Your task to perform on an android device: turn notification dots on Image 0: 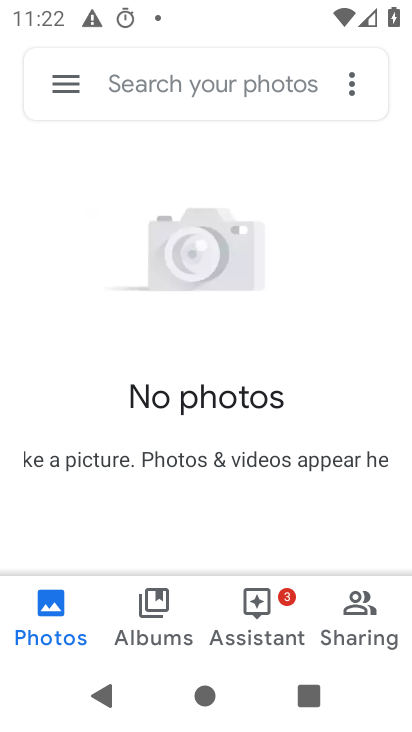
Step 0: press back button
Your task to perform on an android device: turn notification dots on Image 1: 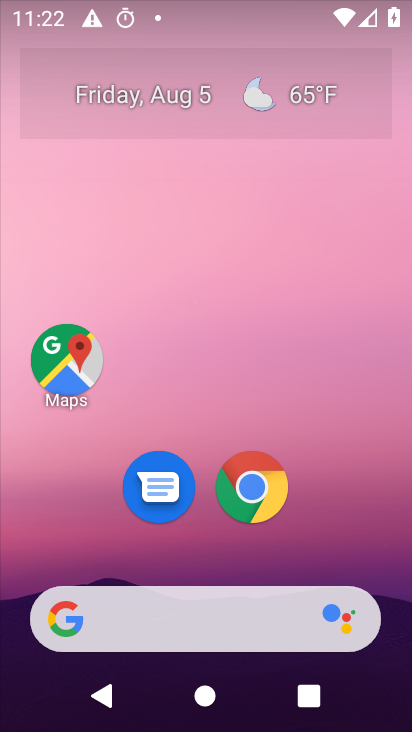
Step 1: drag from (145, 542) to (276, 62)
Your task to perform on an android device: turn notification dots on Image 2: 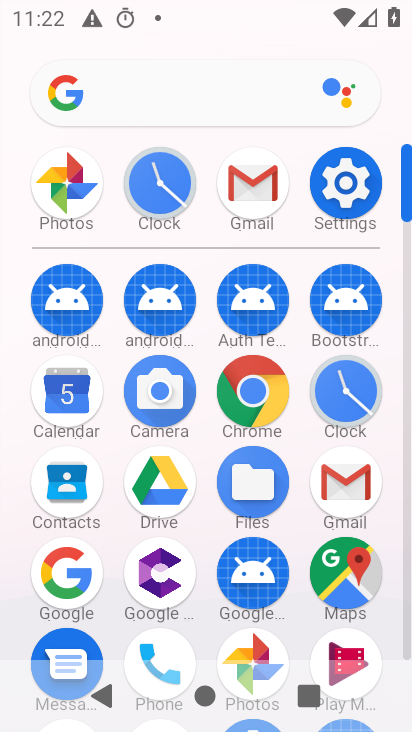
Step 2: click (331, 174)
Your task to perform on an android device: turn notification dots on Image 3: 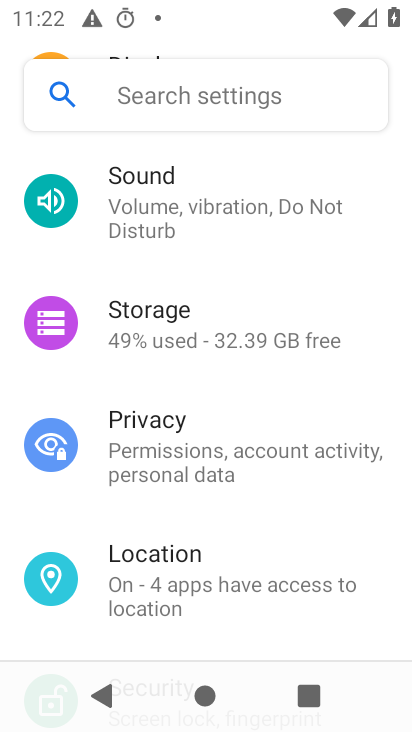
Step 3: drag from (311, 211) to (231, 680)
Your task to perform on an android device: turn notification dots on Image 4: 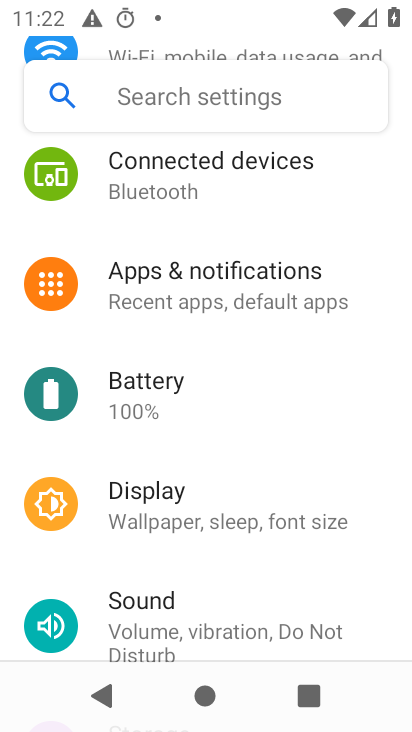
Step 4: click (232, 282)
Your task to perform on an android device: turn notification dots on Image 5: 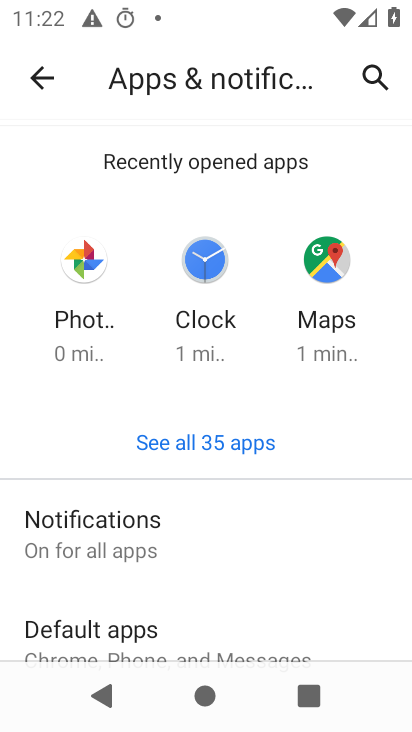
Step 5: click (112, 515)
Your task to perform on an android device: turn notification dots on Image 6: 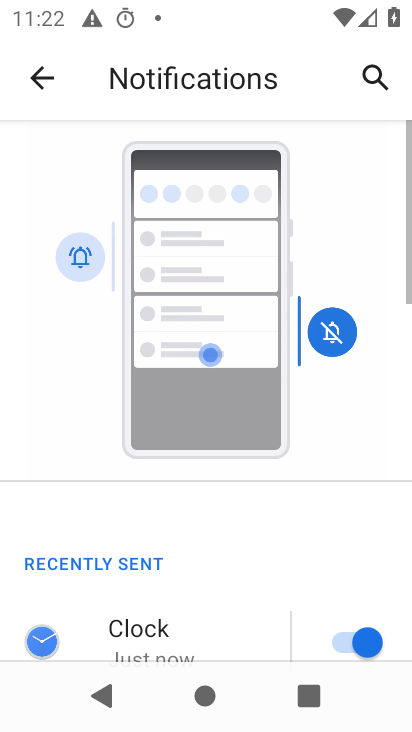
Step 6: drag from (141, 605) to (302, 0)
Your task to perform on an android device: turn notification dots on Image 7: 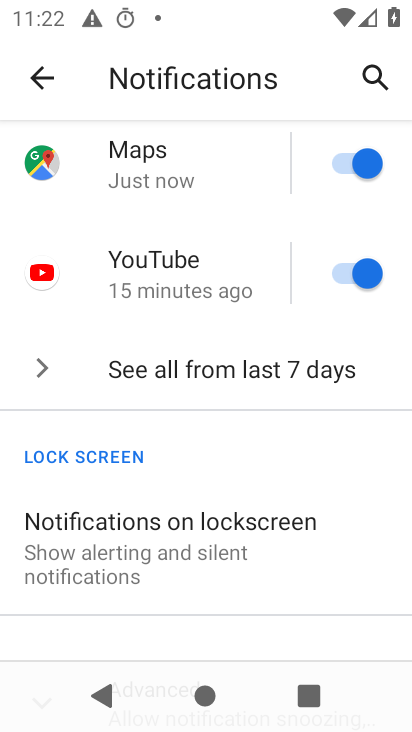
Step 7: drag from (129, 561) to (267, 93)
Your task to perform on an android device: turn notification dots on Image 8: 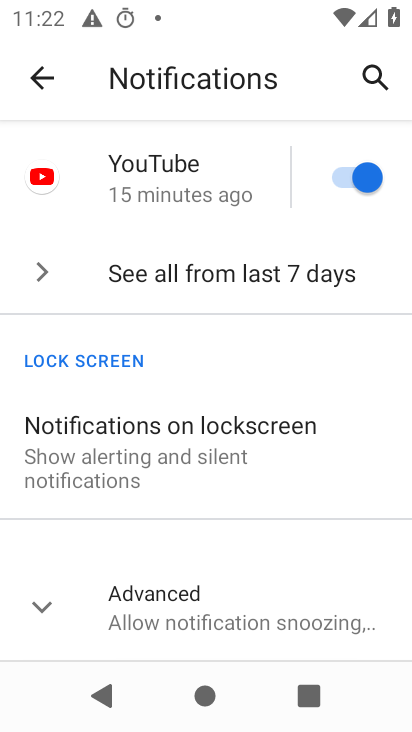
Step 8: click (171, 611)
Your task to perform on an android device: turn notification dots on Image 9: 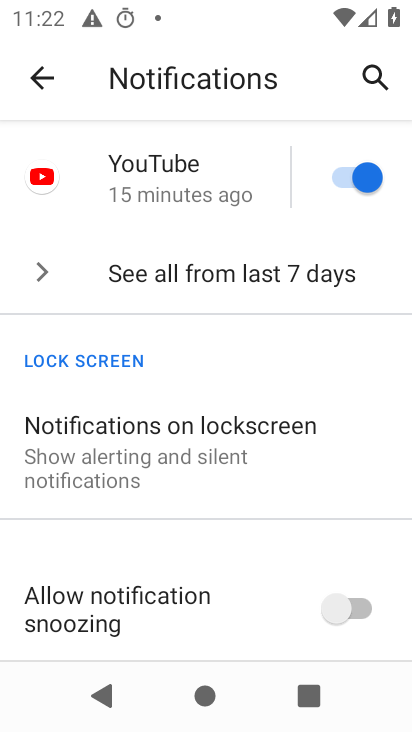
Step 9: drag from (189, 608) to (310, 118)
Your task to perform on an android device: turn notification dots on Image 10: 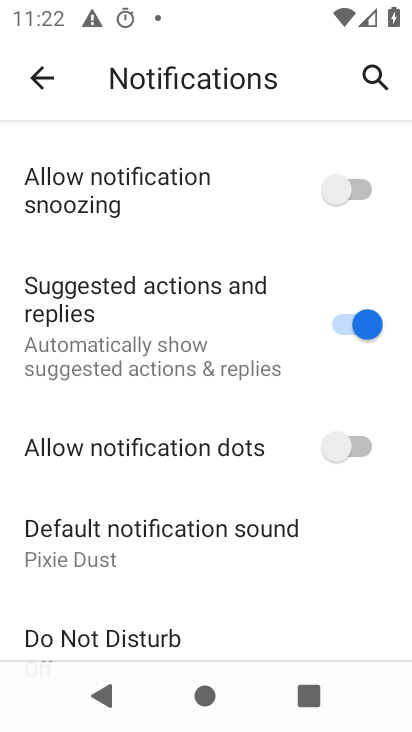
Step 10: click (354, 445)
Your task to perform on an android device: turn notification dots on Image 11: 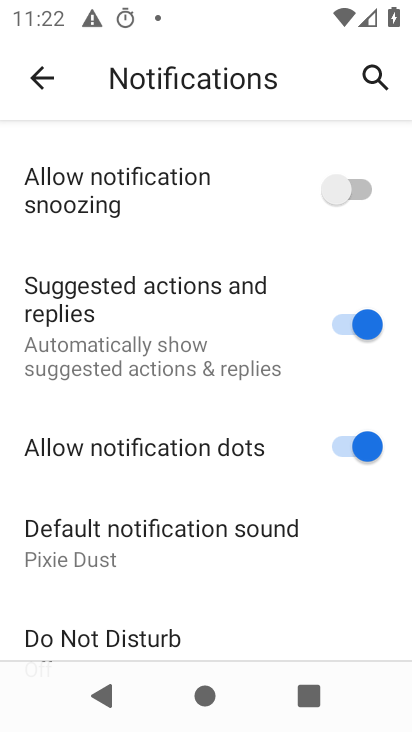
Step 11: task complete